Your task to perform on an android device: Open Google Maps Image 0: 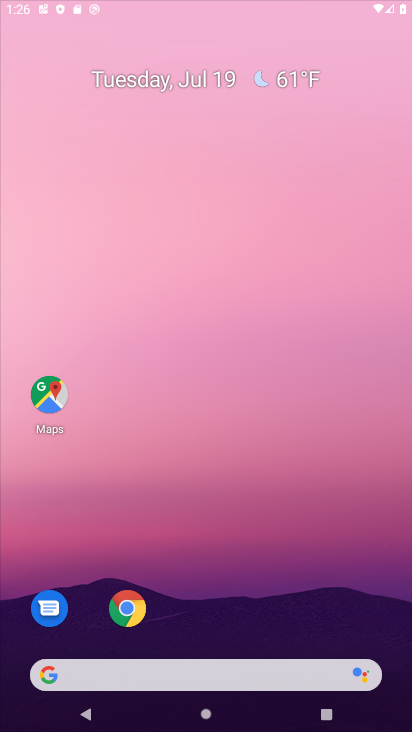
Step 0: click (239, 37)
Your task to perform on an android device: Open Google Maps Image 1: 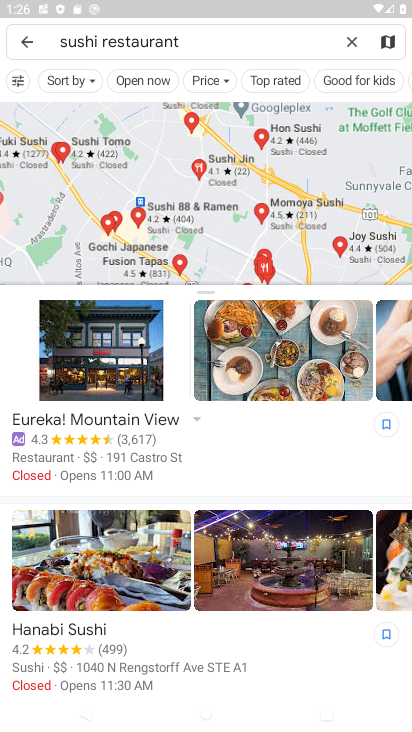
Step 1: task complete